Your task to perform on an android device: Open maps Image 0: 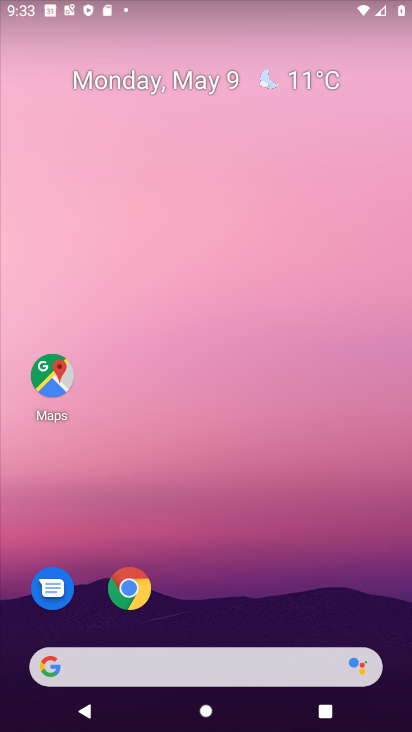
Step 0: press home button
Your task to perform on an android device: Open maps Image 1: 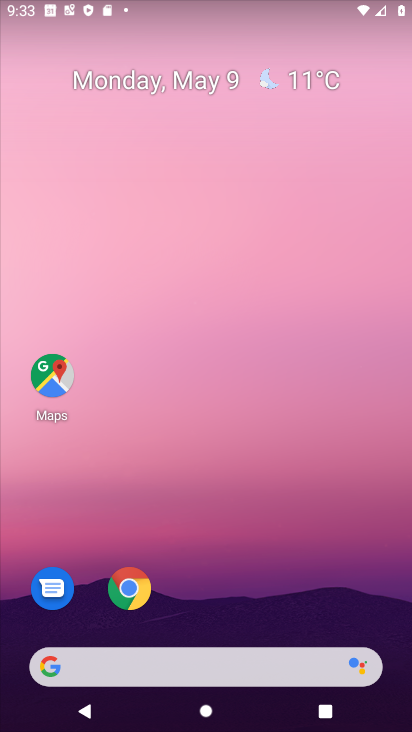
Step 1: click (53, 390)
Your task to perform on an android device: Open maps Image 2: 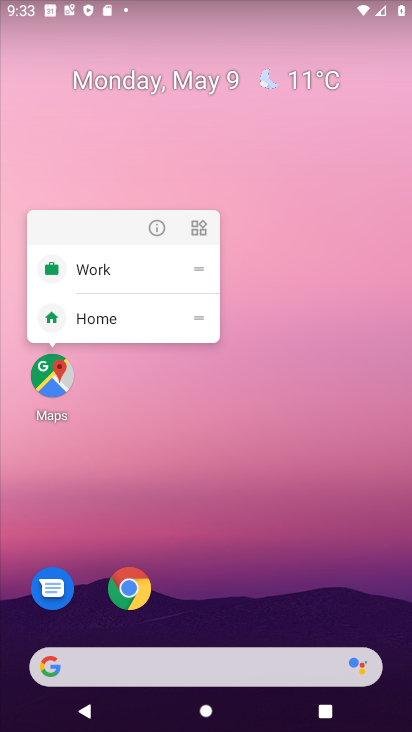
Step 2: click (58, 374)
Your task to perform on an android device: Open maps Image 3: 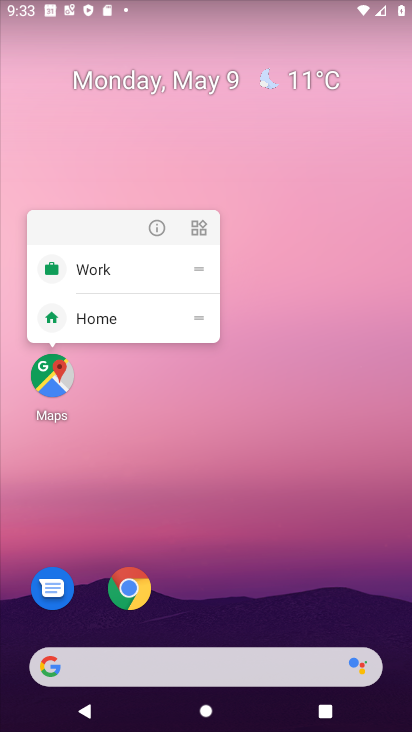
Step 3: click (52, 377)
Your task to perform on an android device: Open maps Image 4: 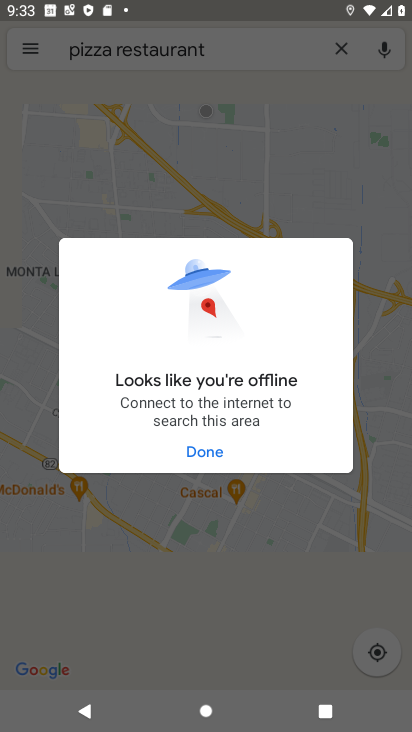
Step 4: click (202, 447)
Your task to perform on an android device: Open maps Image 5: 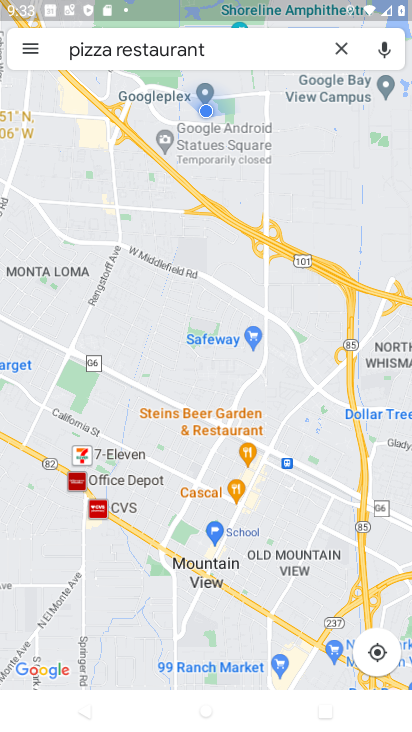
Step 5: task complete